Your task to perform on an android device: turn off translation in the chrome app Image 0: 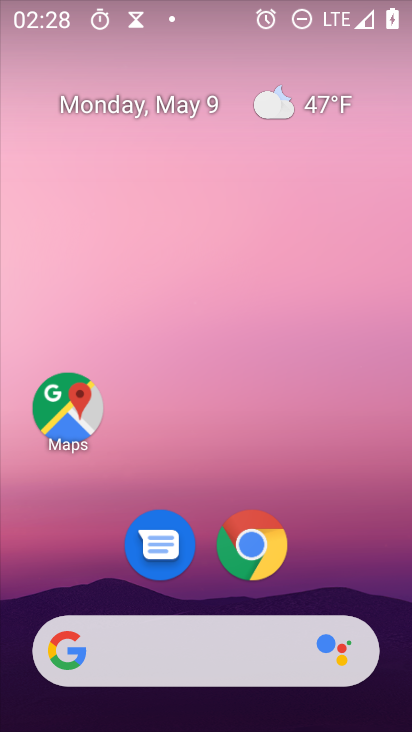
Step 0: drag from (325, 581) to (369, 0)
Your task to perform on an android device: turn off translation in the chrome app Image 1: 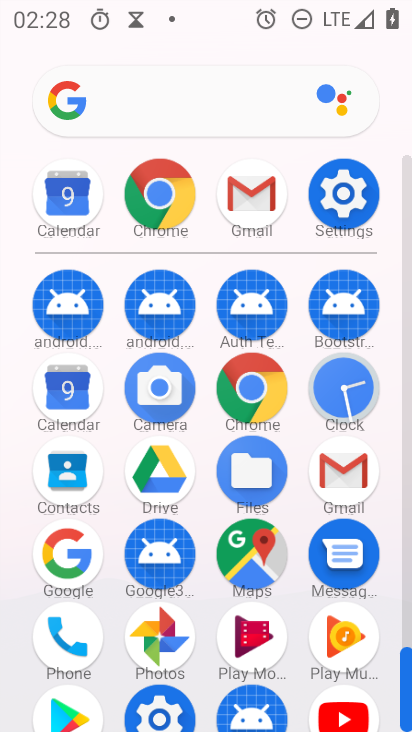
Step 1: click (266, 407)
Your task to perform on an android device: turn off translation in the chrome app Image 2: 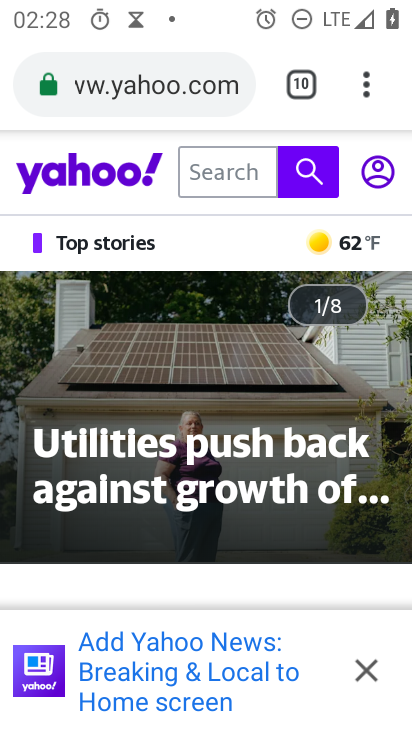
Step 2: drag from (364, 80) to (145, 609)
Your task to perform on an android device: turn off translation in the chrome app Image 3: 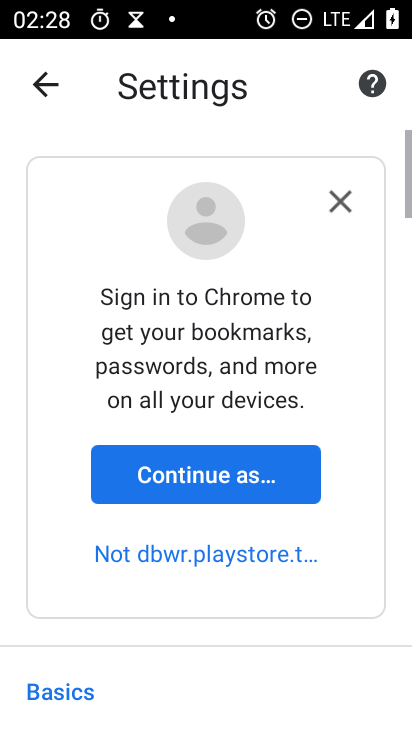
Step 3: drag from (326, 664) to (339, 62)
Your task to perform on an android device: turn off translation in the chrome app Image 4: 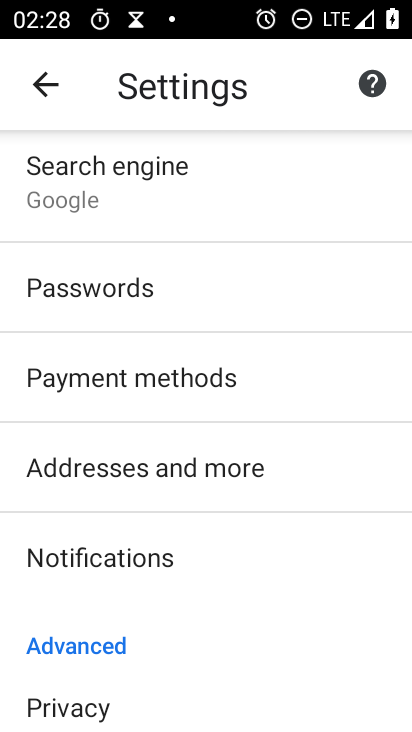
Step 4: drag from (212, 674) to (257, 45)
Your task to perform on an android device: turn off translation in the chrome app Image 5: 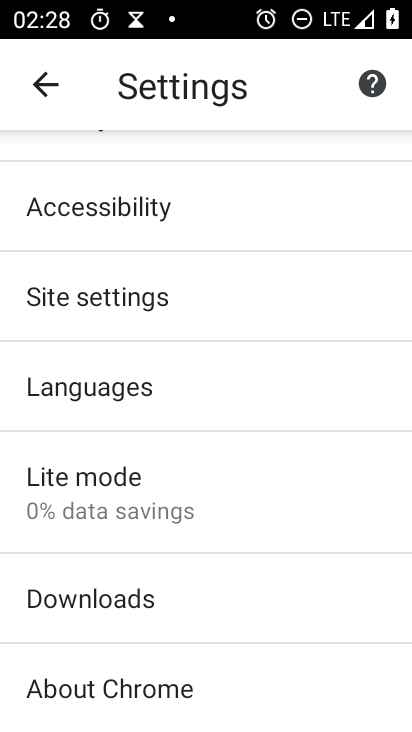
Step 5: click (163, 395)
Your task to perform on an android device: turn off translation in the chrome app Image 6: 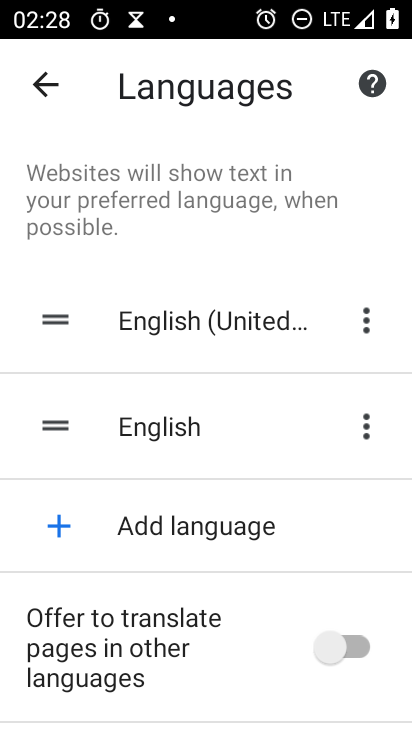
Step 6: task complete